Your task to perform on an android device: turn off notifications settings in the gmail app Image 0: 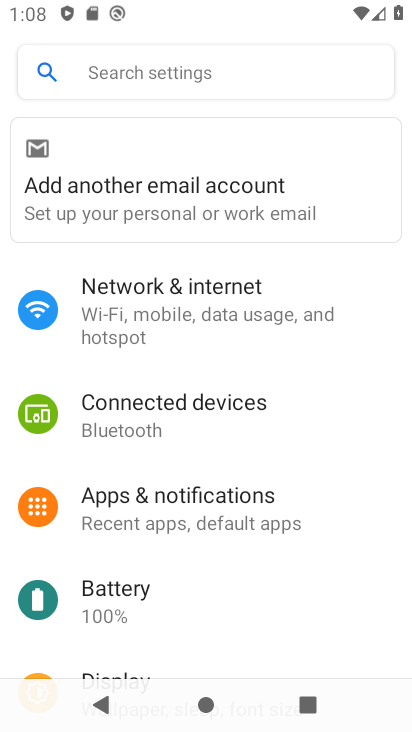
Step 0: press home button
Your task to perform on an android device: turn off notifications settings in the gmail app Image 1: 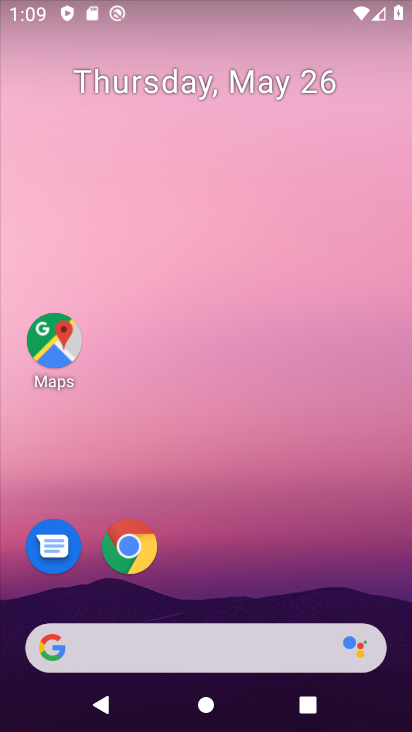
Step 1: drag from (174, 639) to (218, 59)
Your task to perform on an android device: turn off notifications settings in the gmail app Image 2: 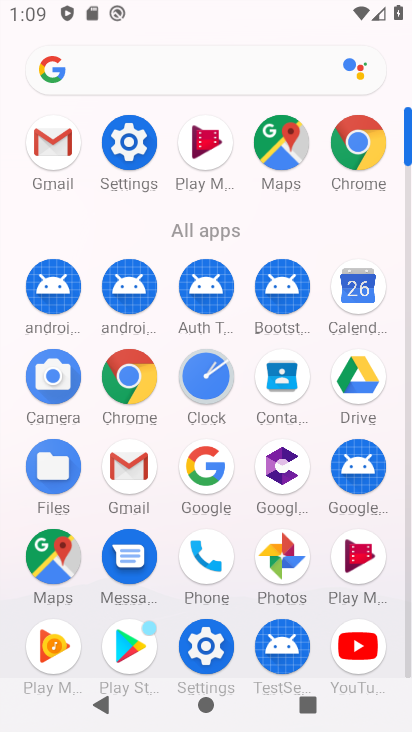
Step 2: click (138, 492)
Your task to perform on an android device: turn off notifications settings in the gmail app Image 3: 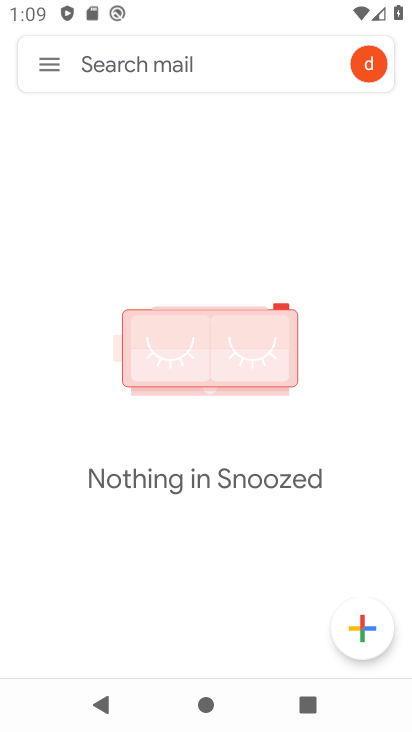
Step 3: click (52, 74)
Your task to perform on an android device: turn off notifications settings in the gmail app Image 4: 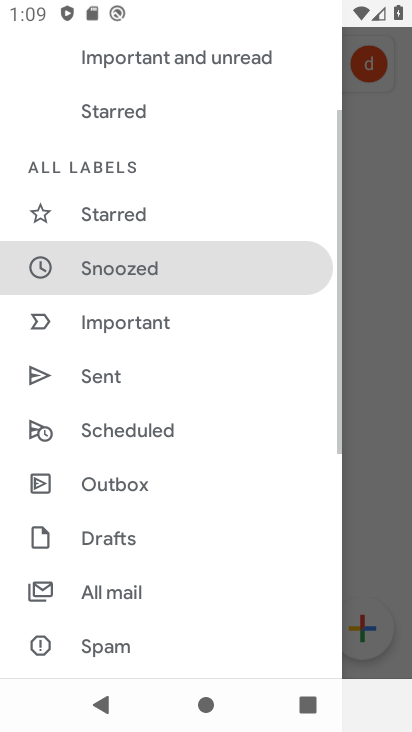
Step 4: drag from (116, 620) to (102, 21)
Your task to perform on an android device: turn off notifications settings in the gmail app Image 5: 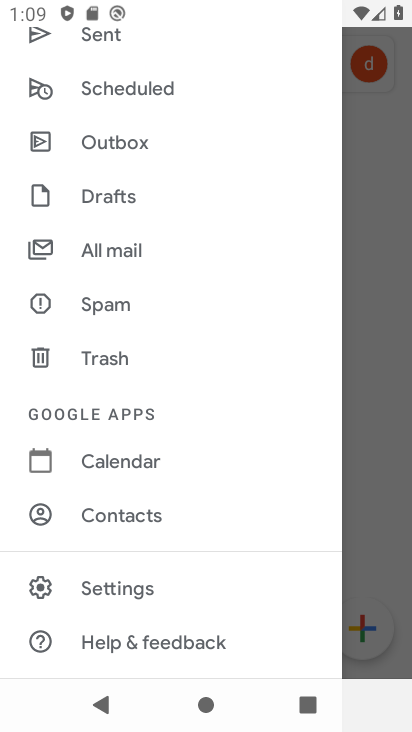
Step 5: click (121, 590)
Your task to perform on an android device: turn off notifications settings in the gmail app Image 6: 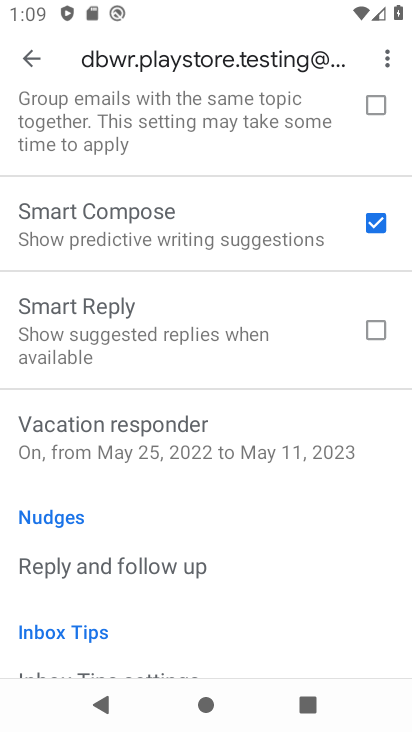
Step 6: click (26, 54)
Your task to perform on an android device: turn off notifications settings in the gmail app Image 7: 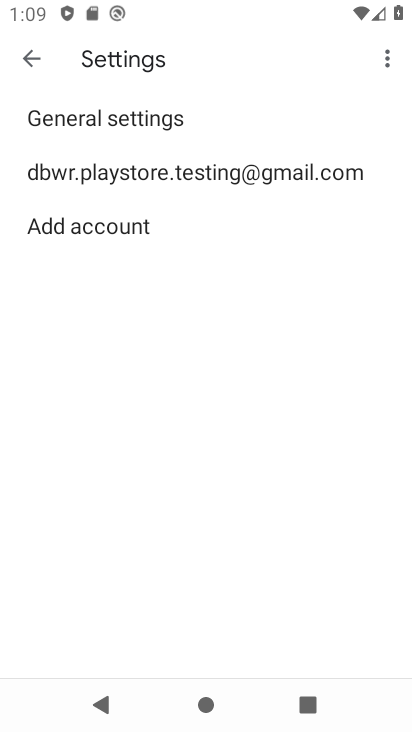
Step 7: click (136, 177)
Your task to perform on an android device: turn off notifications settings in the gmail app Image 8: 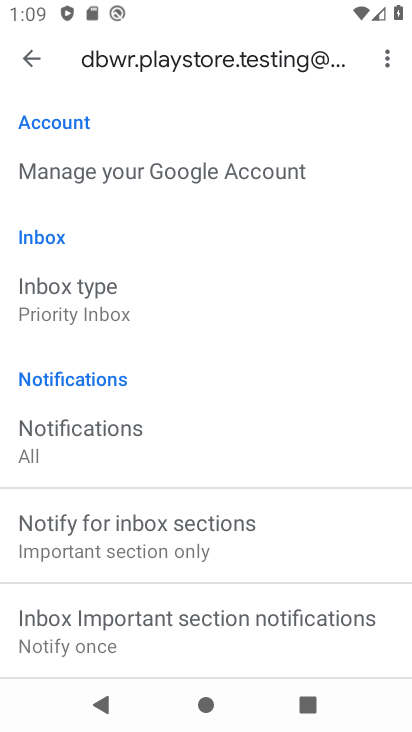
Step 8: drag from (208, 644) to (157, 223)
Your task to perform on an android device: turn off notifications settings in the gmail app Image 9: 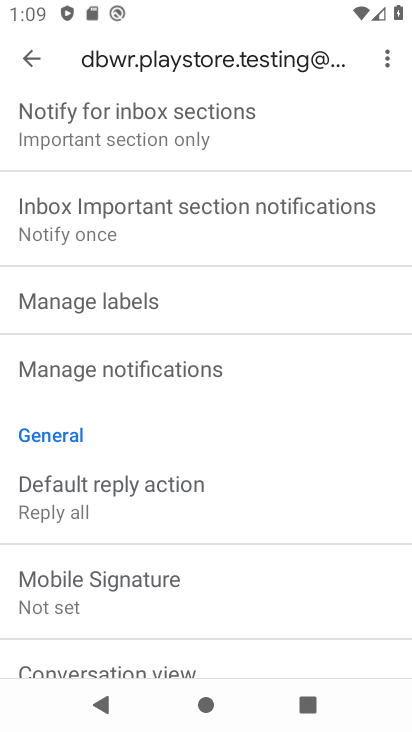
Step 9: click (188, 371)
Your task to perform on an android device: turn off notifications settings in the gmail app Image 10: 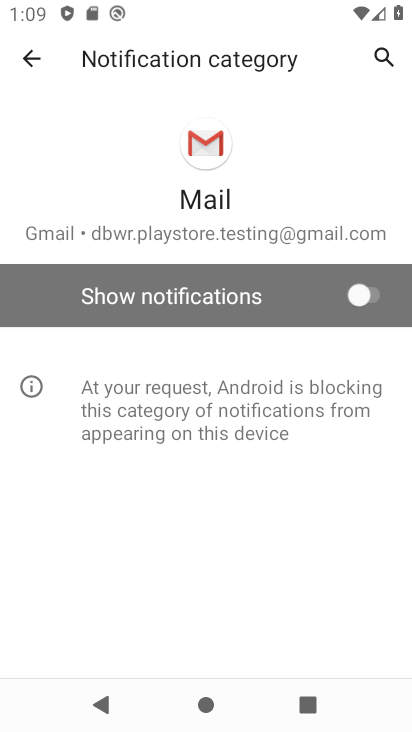
Step 10: task complete